Your task to perform on an android device: Open the Play Movies app and select the watchlist tab. Image 0: 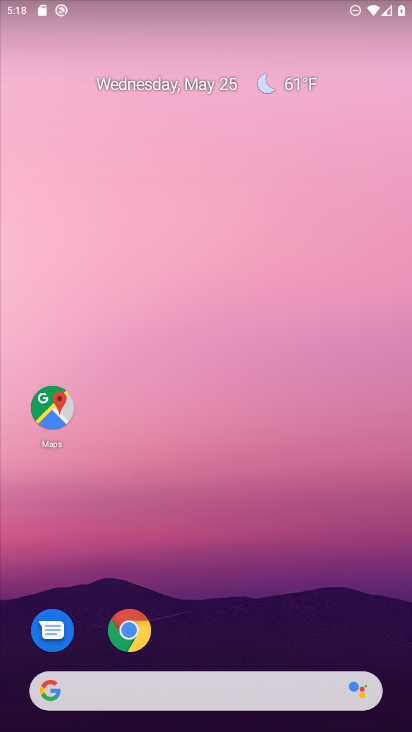
Step 0: drag from (206, 578) to (248, 108)
Your task to perform on an android device: Open the Play Movies app and select the watchlist tab. Image 1: 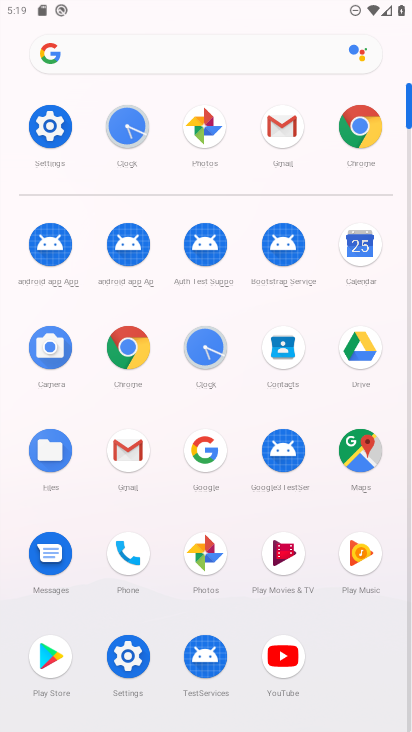
Step 1: click (287, 550)
Your task to perform on an android device: Open the Play Movies app and select the watchlist tab. Image 2: 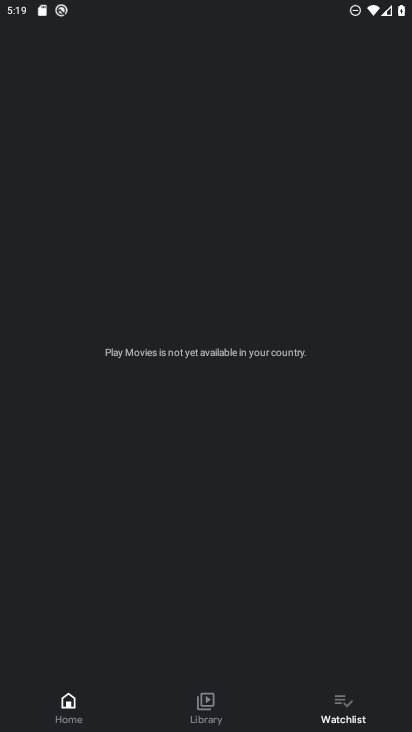
Step 2: click (334, 709)
Your task to perform on an android device: Open the Play Movies app and select the watchlist tab. Image 3: 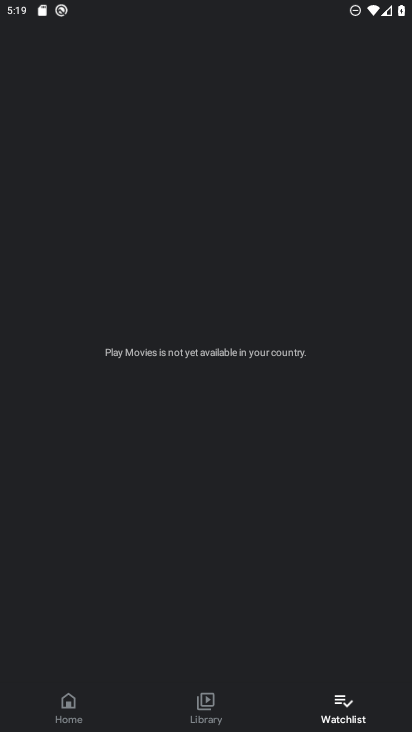
Step 3: task complete